Your task to perform on an android device: Open calendar and show me the third week of next month Image 0: 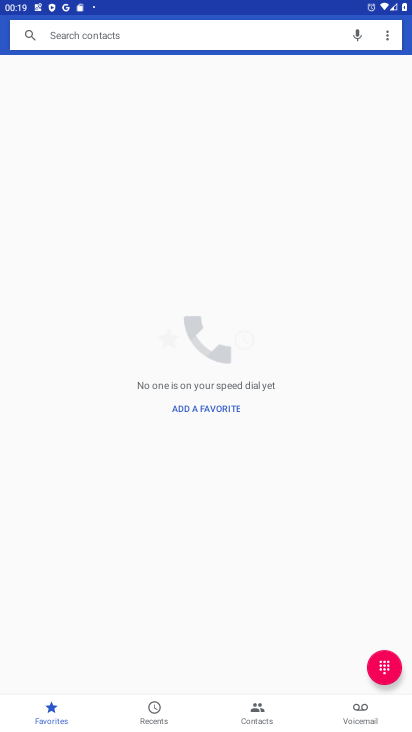
Step 0: press home button
Your task to perform on an android device: Open calendar and show me the third week of next month Image 1: 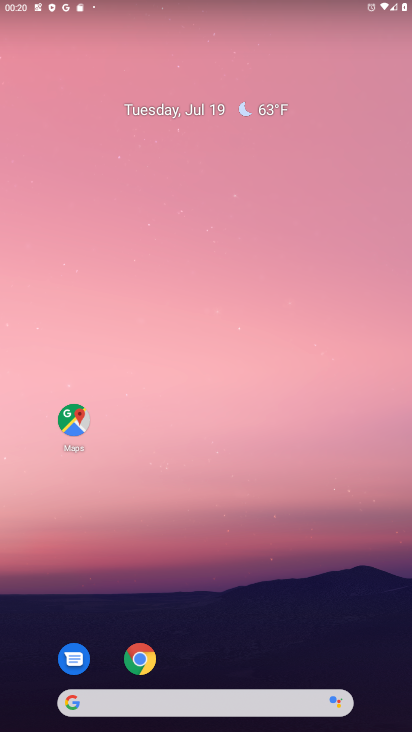
Step 1: drag from (245, 643) to (181, 44)
Your task to perform on an android device: Open calendar and show me the third week of next month Image 2: 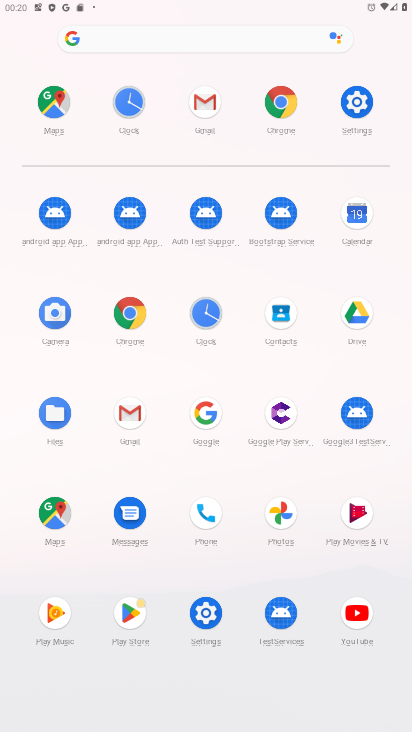
Step 2: click (332, 232)
Your task to perform on an android device: Open calendar and show me the third week of next month Image 3: 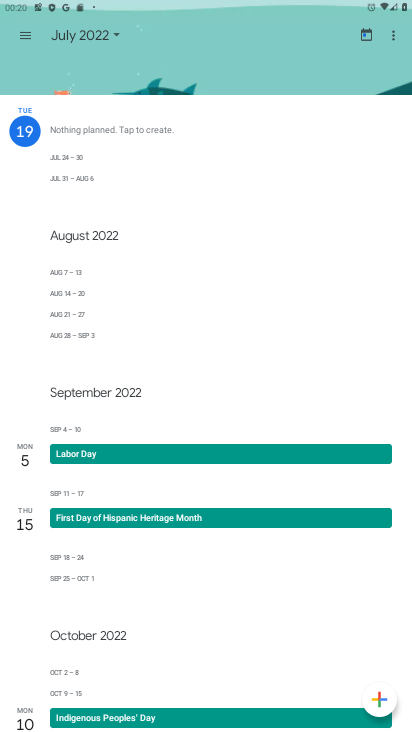
Step 3: click (99, 37)
Your task to perform on an android device: Open calendar and show me the third week of next month Image 4: 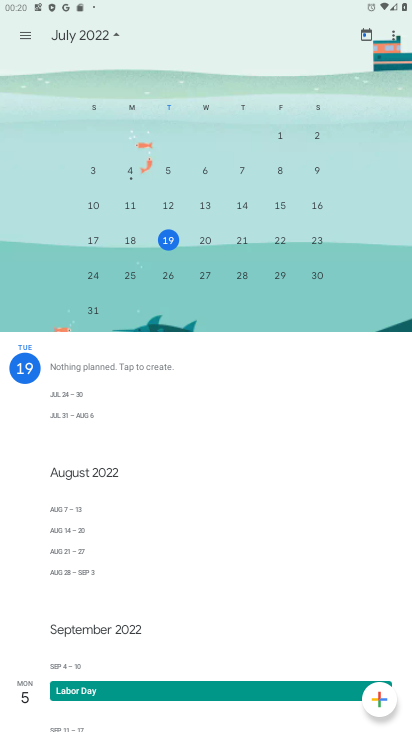
Step 4: drag from (376, 123) to (57, 185)
Your task to perform on an android device: Open calendar and show me the third week of next month Image 5: 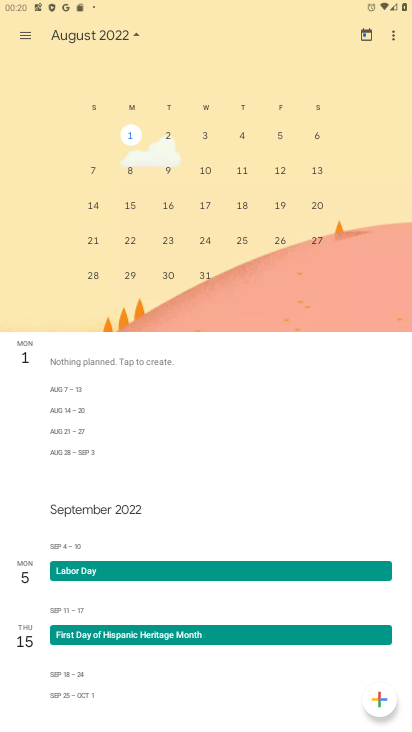
Step 5: click (137, 196)
Your task to perform on an android device: Open calendar and show me the third week of next month Image 6: 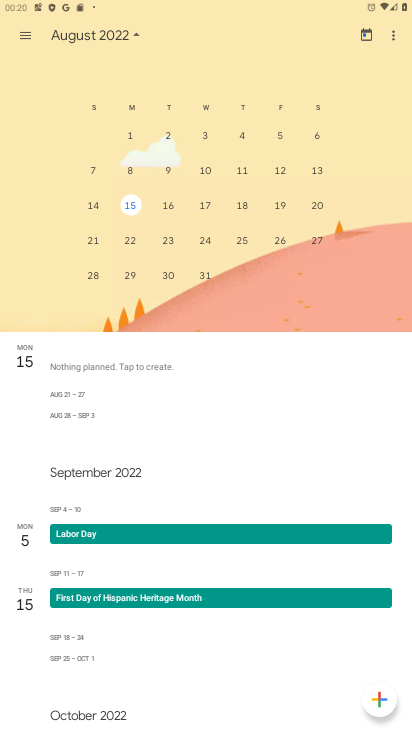
Step 6: task complete